Your task to perform on an android device: toggle sleep mode Image 0: 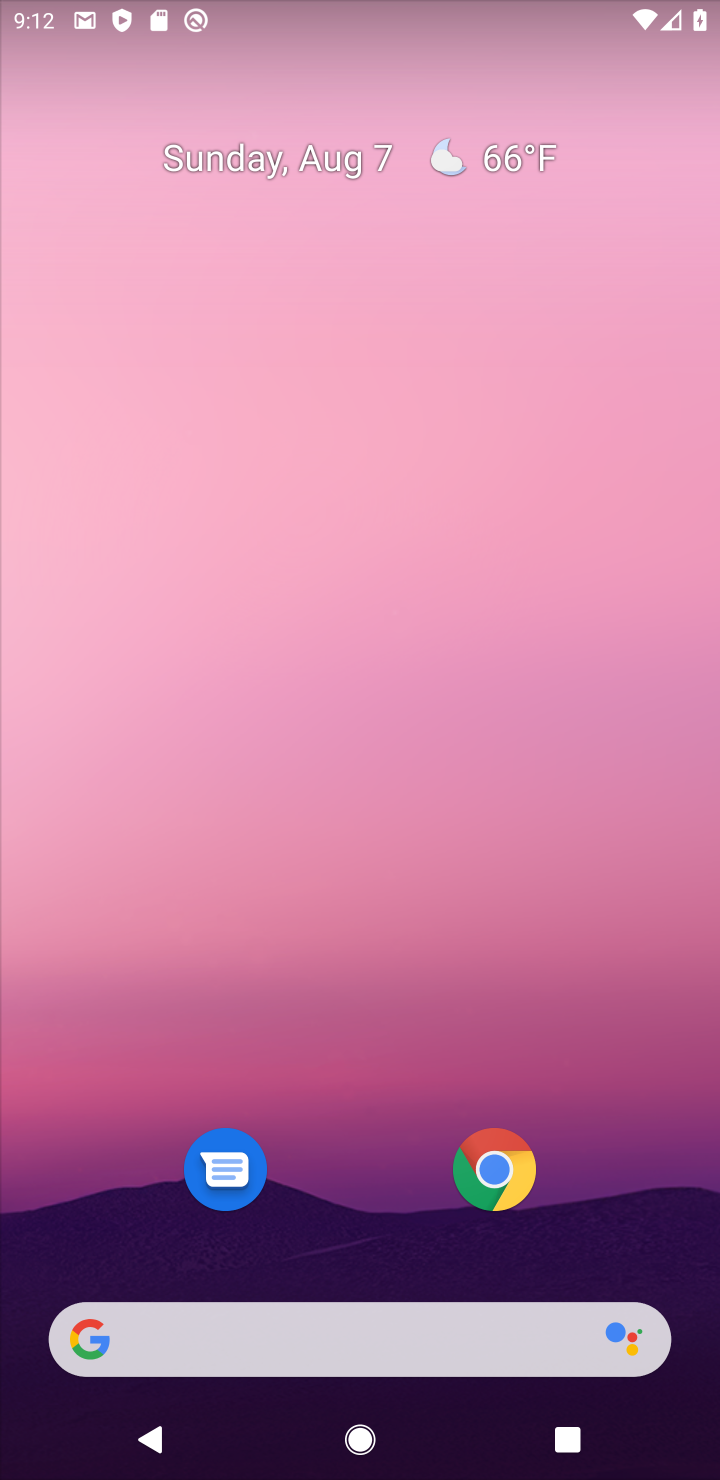
Step 0: drag from (433, 1277) to (548, 23)
Your task to perform on an android device: toggle sleep mode Image 1: 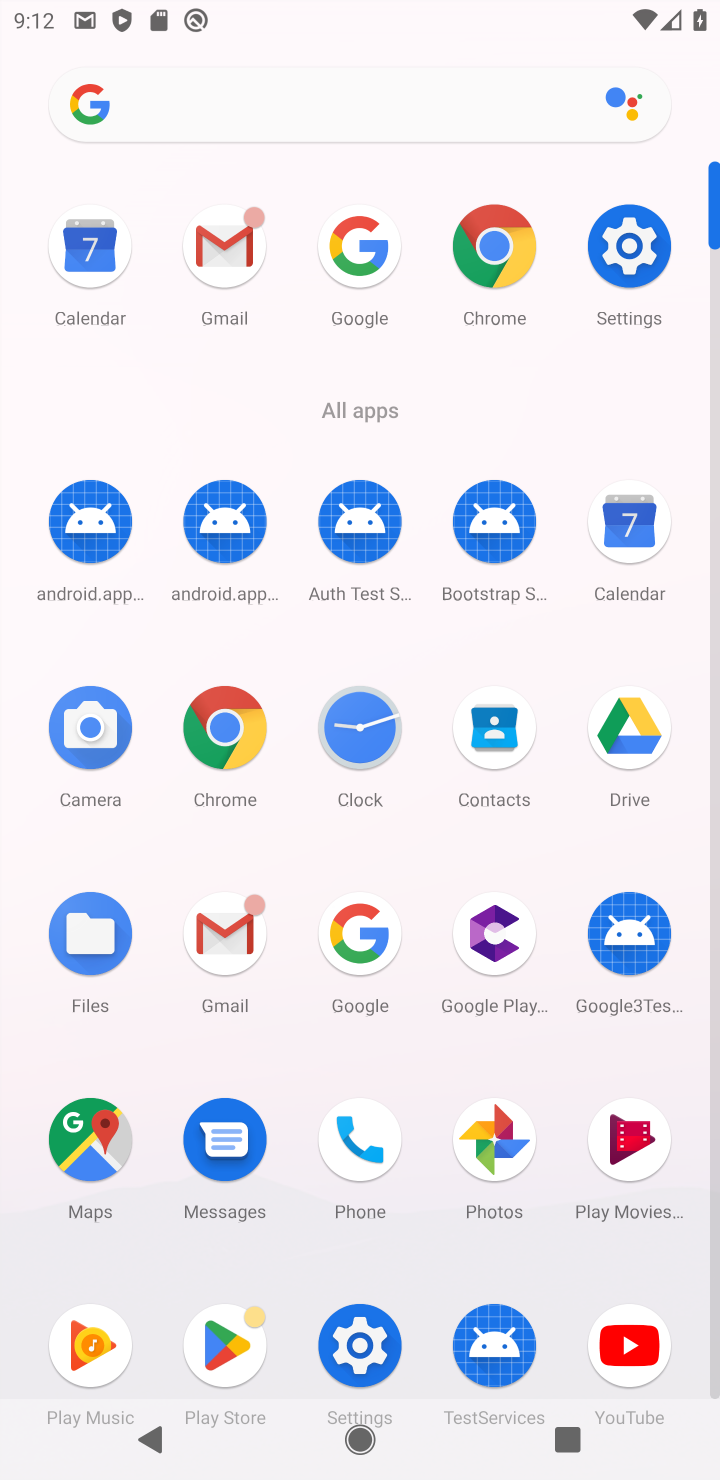
Step 1: click (655, 237)
Your task to perform on an android device: toggle sleep mode Image 2: 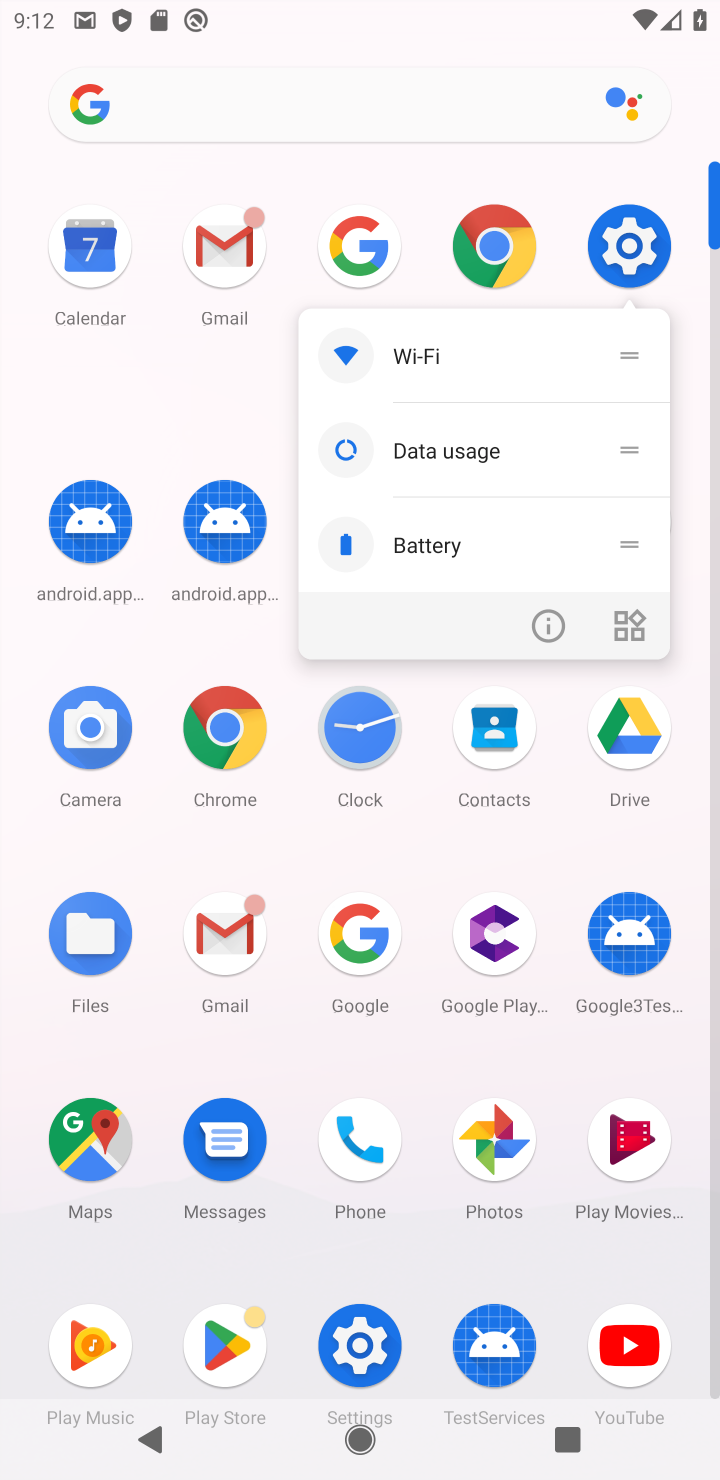
Step 2: click (637, 255)
Your task to perform on an android device: toggle sleep mode Image 3: 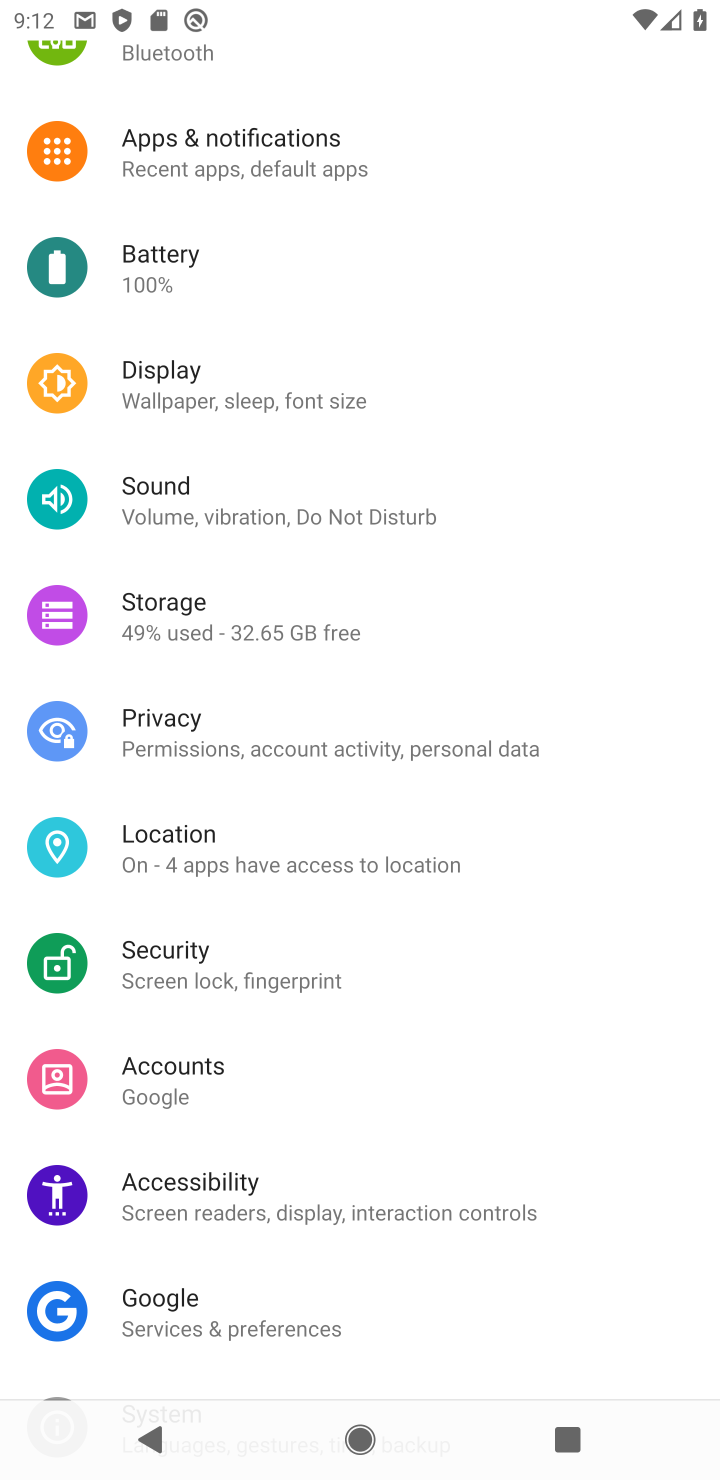
Step 3: click (312, 395)
Your task to perform on an android device: toggle sleep mode Image 4: 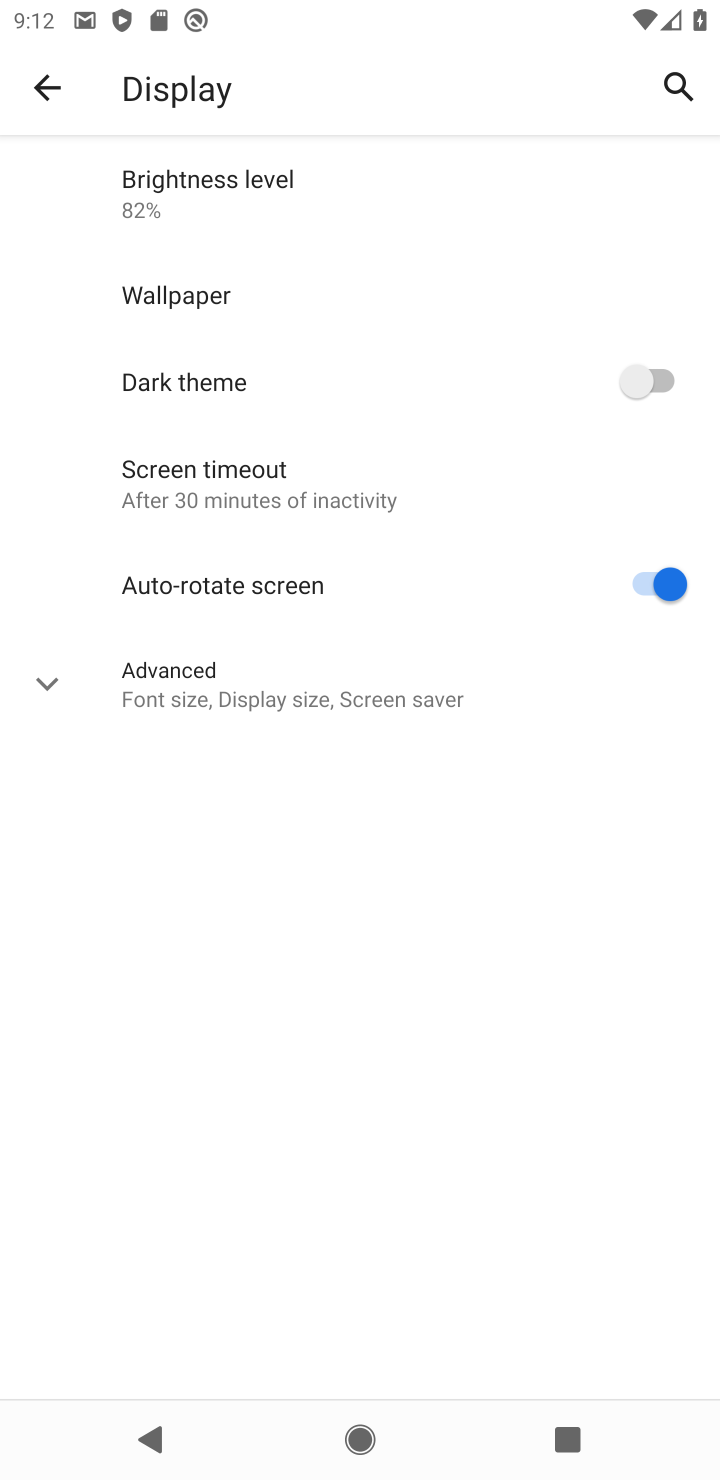
Step 4: task complete